Your task to perform on an android device: Search for Mexican restaurants on Maps Image 0: 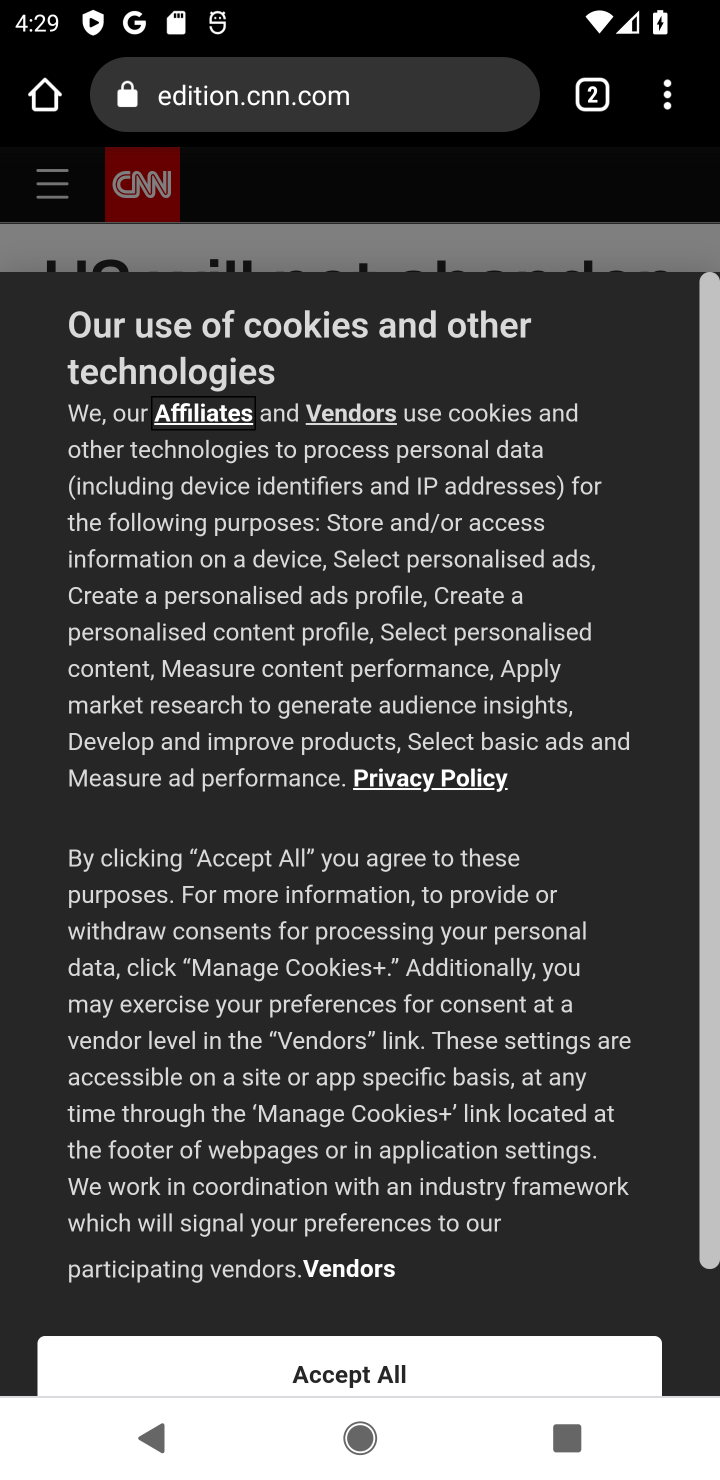
Step 0: press home button
Your task to perform on an android device: Search for Mexican restaurants on Maps Image 1: 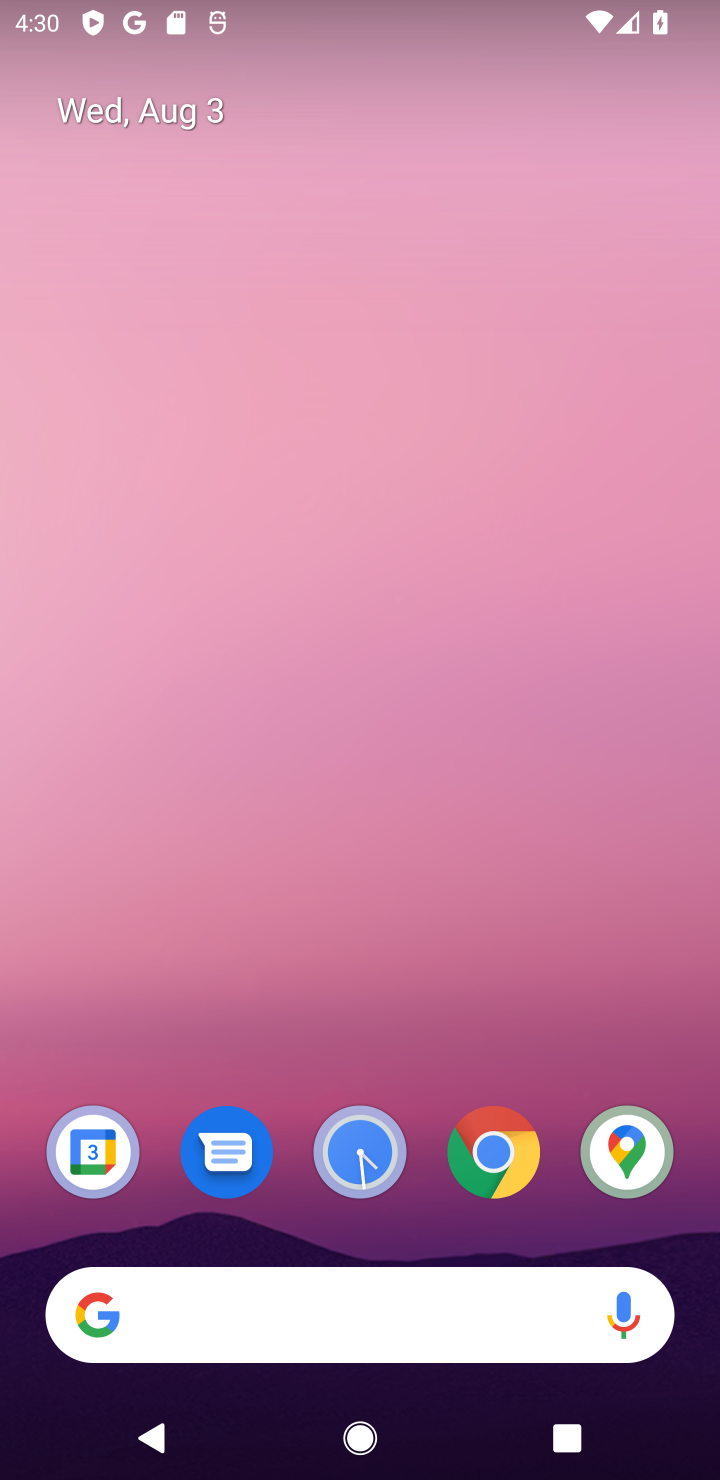
Step 1: drag from (244, 1274) to (267, 329)
Your task to perform on an android device: Search for Mexican restaurants on Maps Image 2: 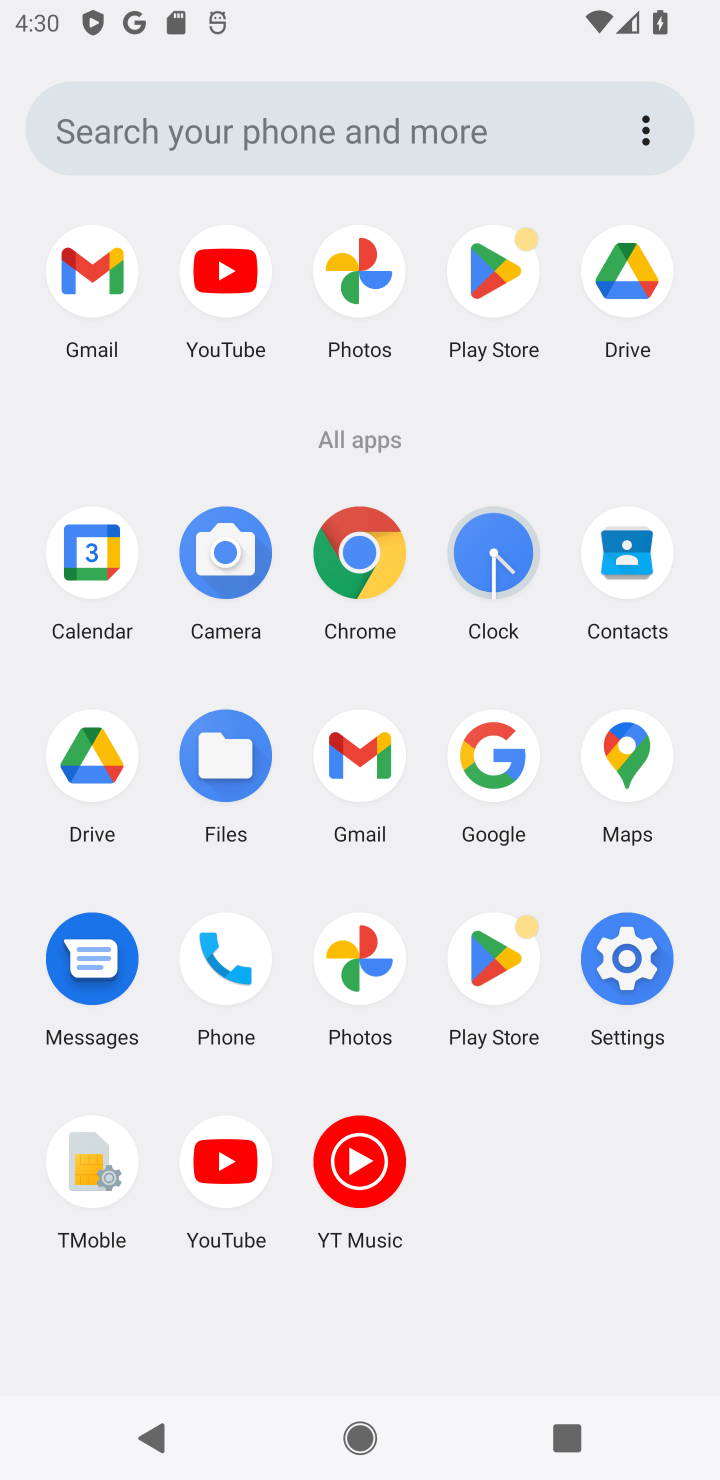
Step 2: click (622, 742)
Your task to perform on an android device: Search for Mexican restaurants on Maps Image 3: 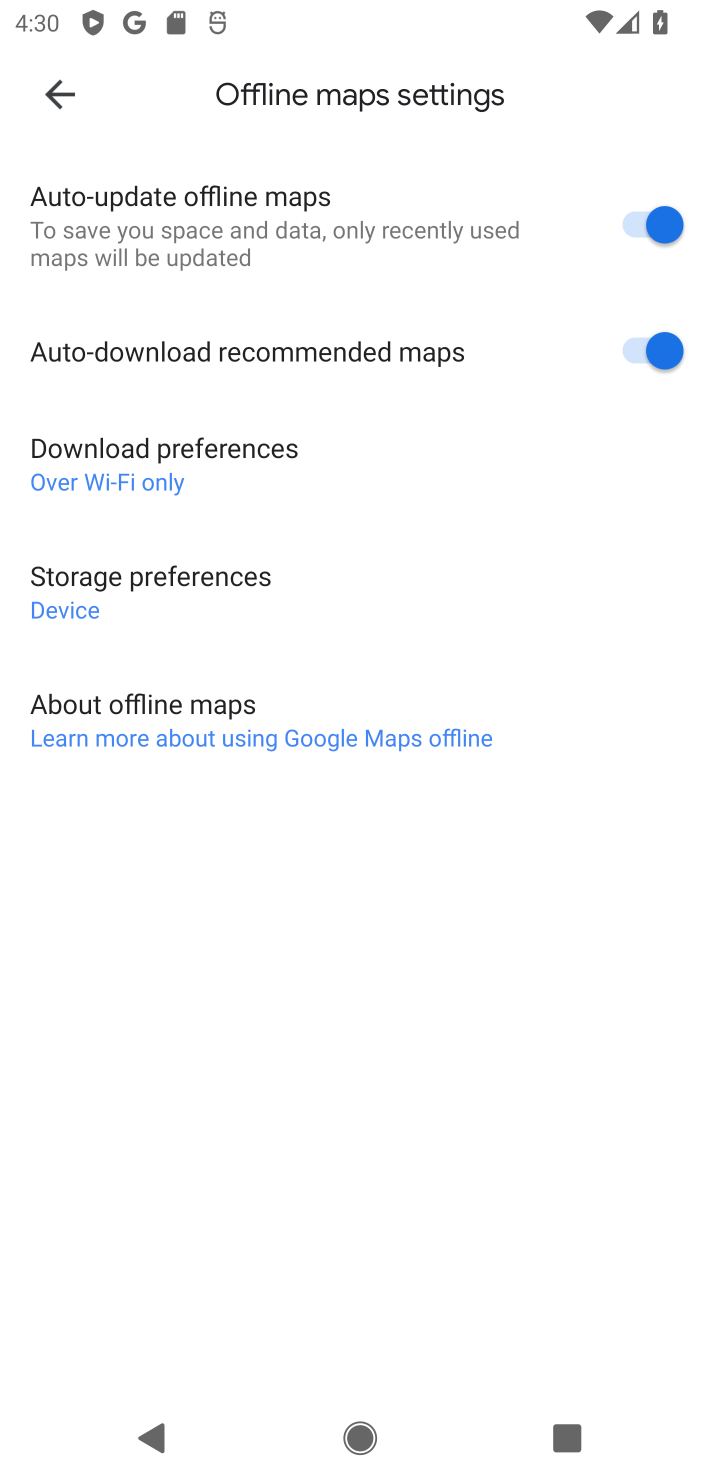
Step 3: click (55, 126)
Your task to perform on an android device: Search for Mexican restaurants on Maps Image 4: 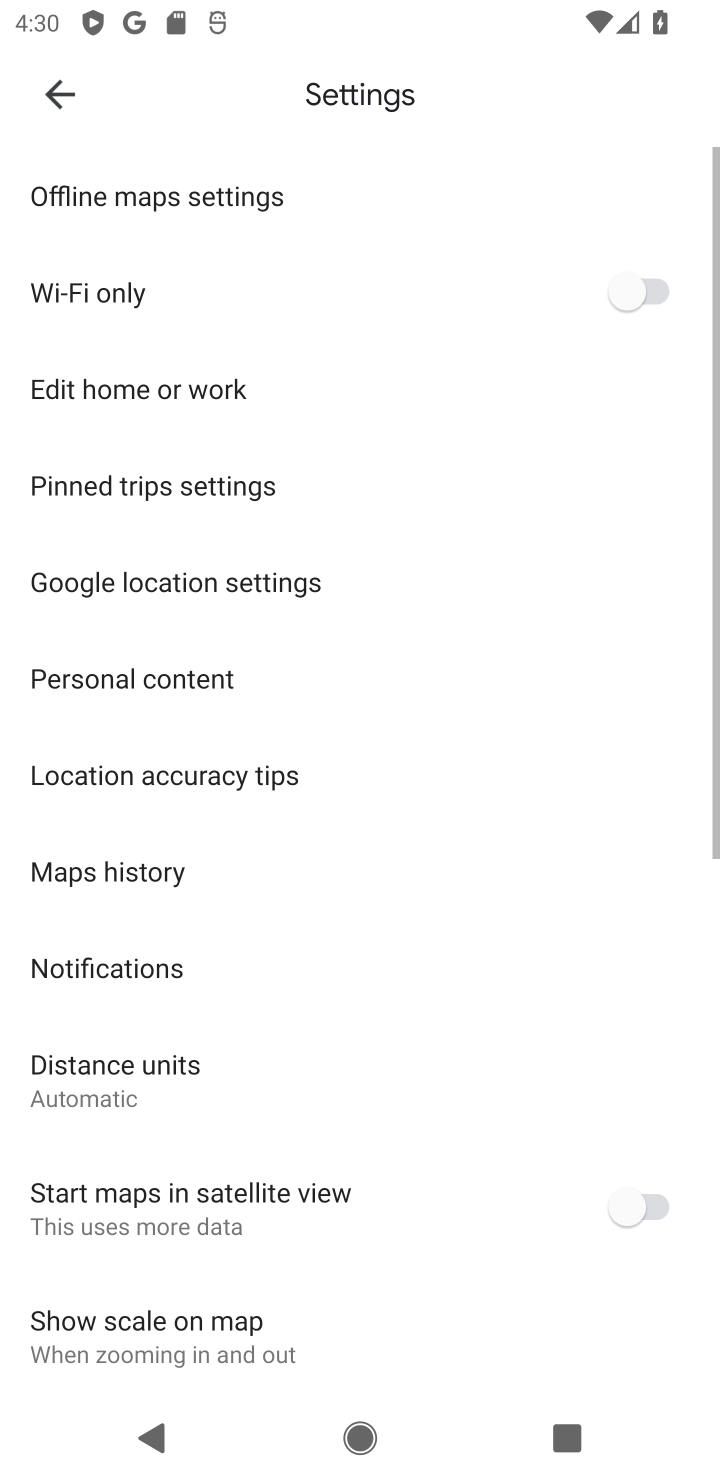
Step 4: click (71, 122)
Your task to perform on an android device: Search for Mexican restaurants on Maps Image 5: 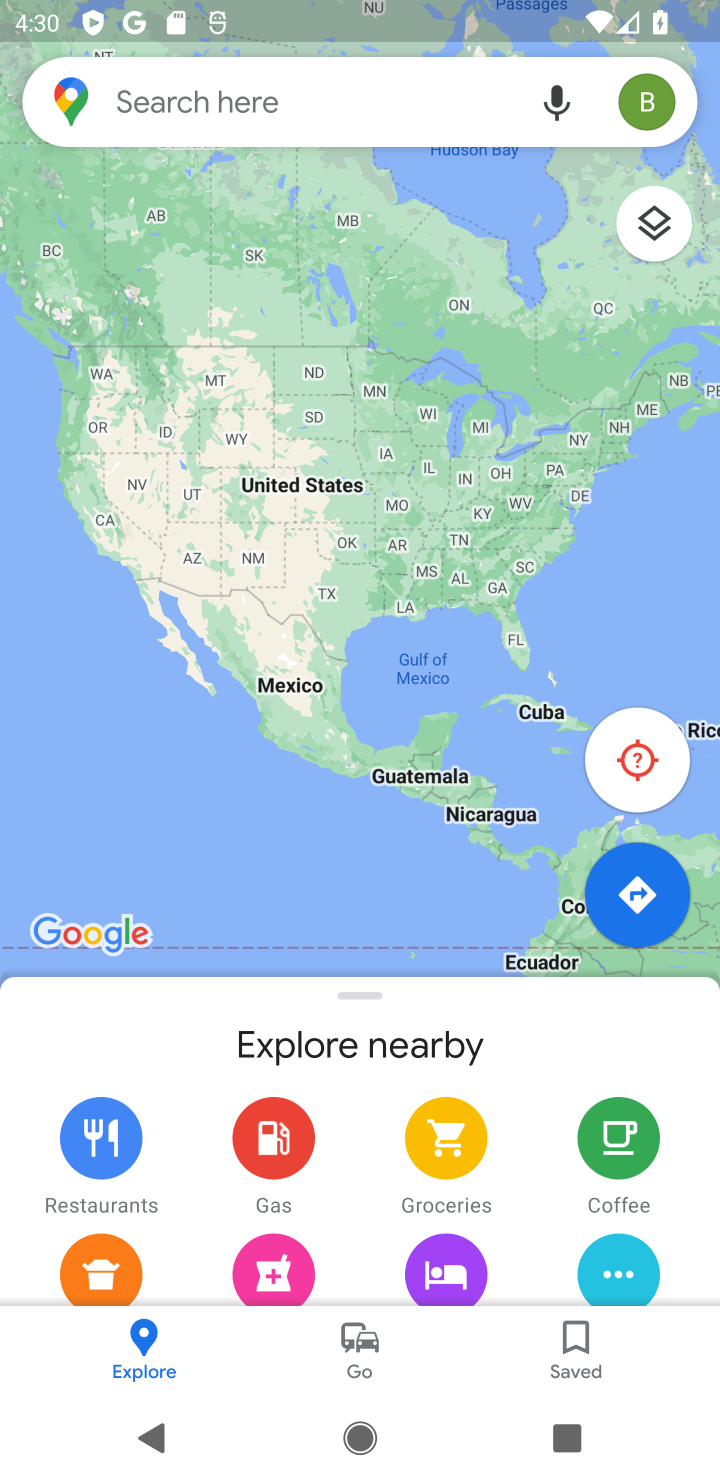
Step 5: click (248, 108)
Your task to perform on an android device: Search for Mexican restaurants on Maps Image 6: 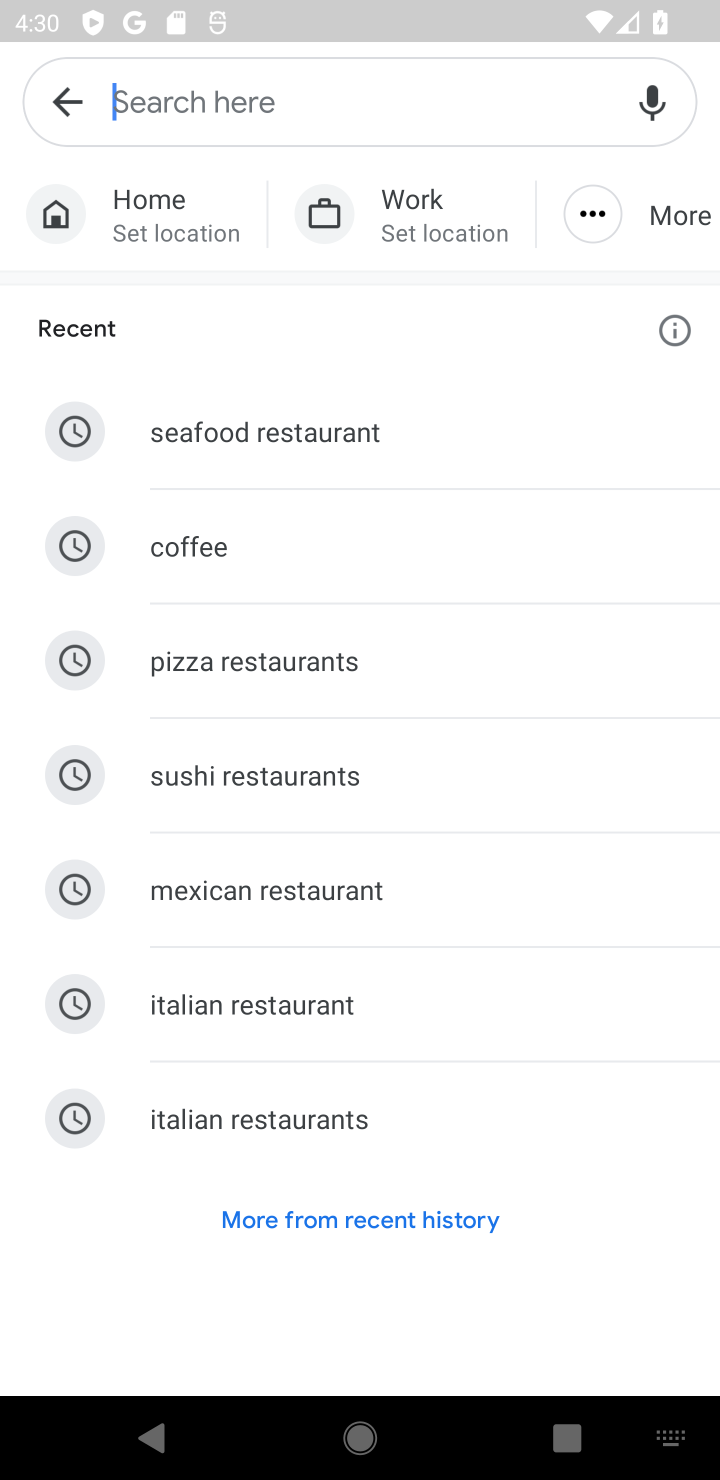
Step 6: click (345, 892)
Your task to perform on an android device: Search for Mexican restaurants on Maps Image 7: 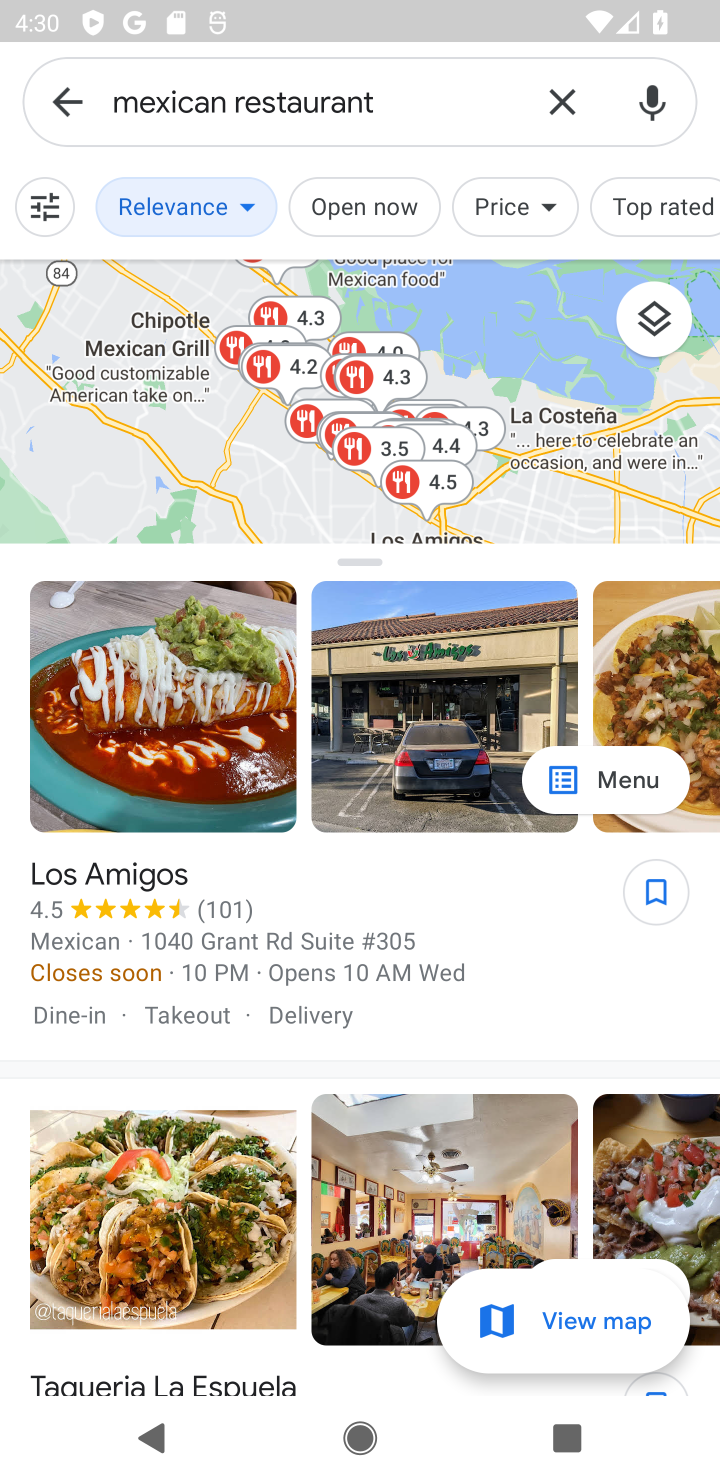
Step 7: task complete